Your task to perform on an android device: turn off javascript in the chrome app Image 0: 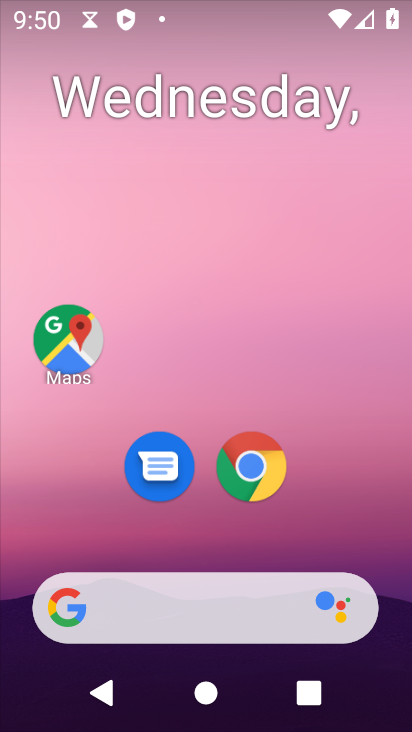
Step 0: click (239, 476)
Your task to perform on an android device: turn off javascript in the chrome app Image 1: 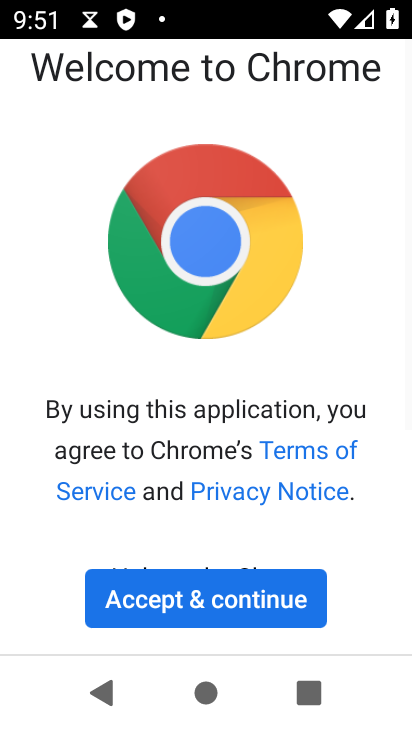
Step 1: click (210, 613)
Your task to perform on an android device: turn off javascript in the chrome app Image 2: 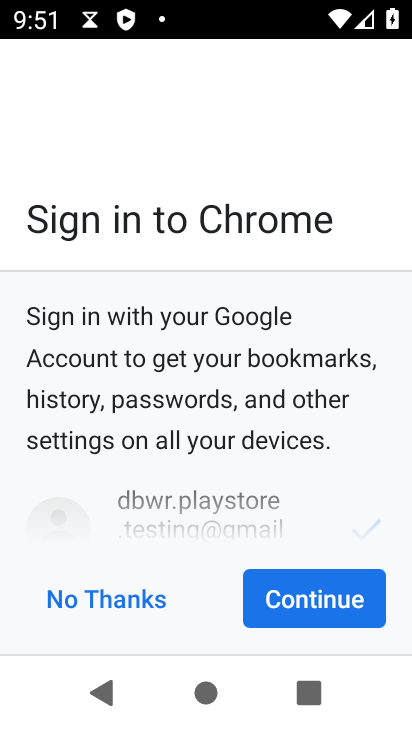
Step 2: click (304, 605)
Your task to perform on an android device: turn off javascript in the chrome app Image 3: 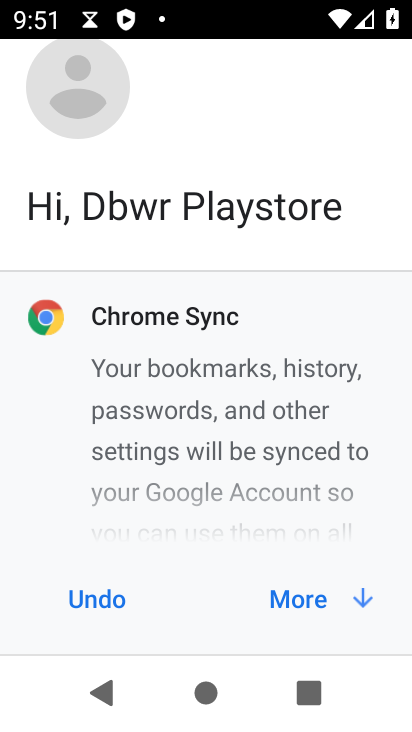
Step 3: click (304, 605)
Your task to perform on an android device: turn off javascript in the chrome app Image 4: 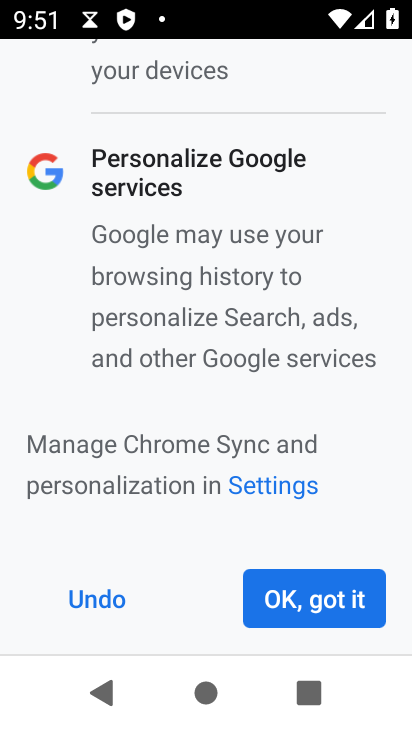
Step 4: click (302, 610)
Your task to perform on an android device: turn off javascript in the chrome app Image 5: 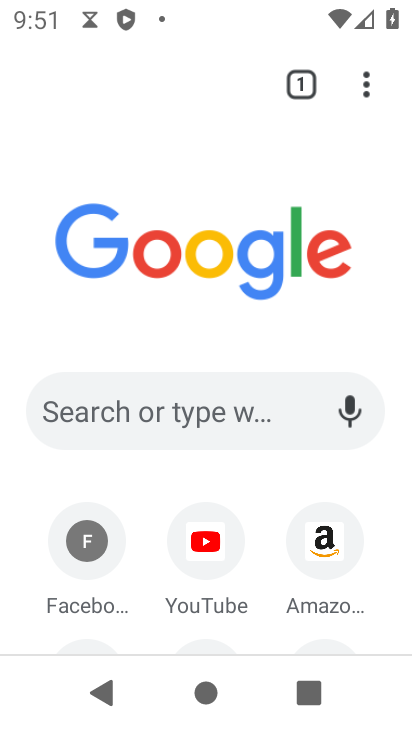
Step 5: click (365, 96)
Your task to perform on an android device: turn off javascript in the chrome app Image 6: 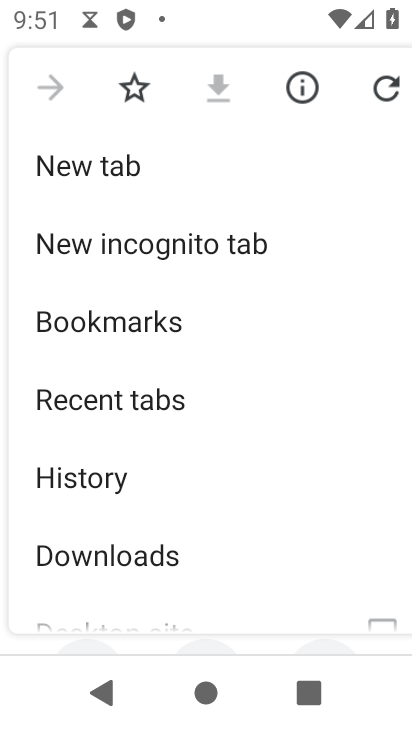
Step 6: drag from (252, 545) to (175, 115)
Your task to perform on an android device: turn off javascript in the chrome app Image 7: 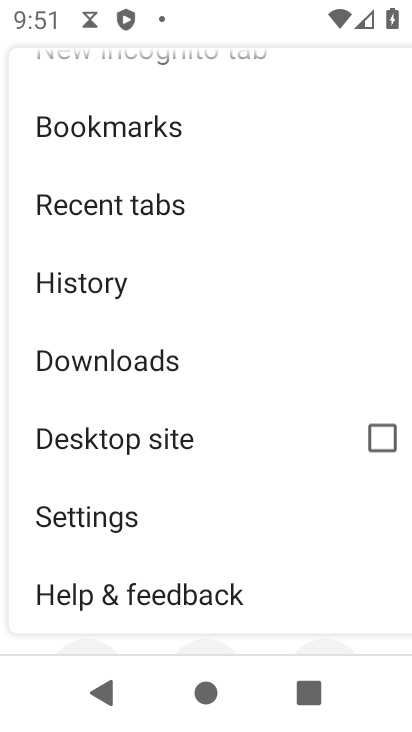
Step 7: click (105, 526)
Your task to perform on an android device: turn off javascript in the chrome app Image 8: 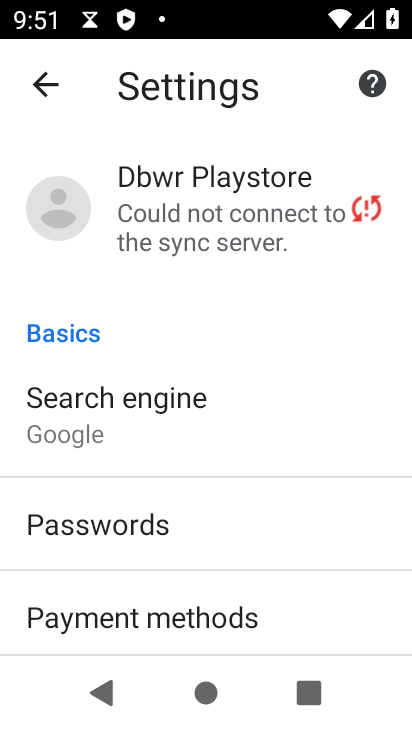
Step 8: drag from (157, 552) to (107, 143)
Your task to perform on an android device: turn off javascript in the chrome app Image 9: 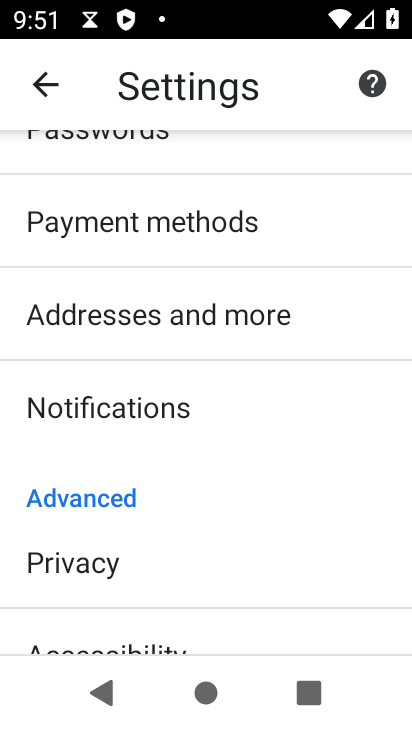
Step 9: drag from (184, 569) to (166, 203)
Your task to perform on an android device: turn off javascript in the chrome app Image 10: 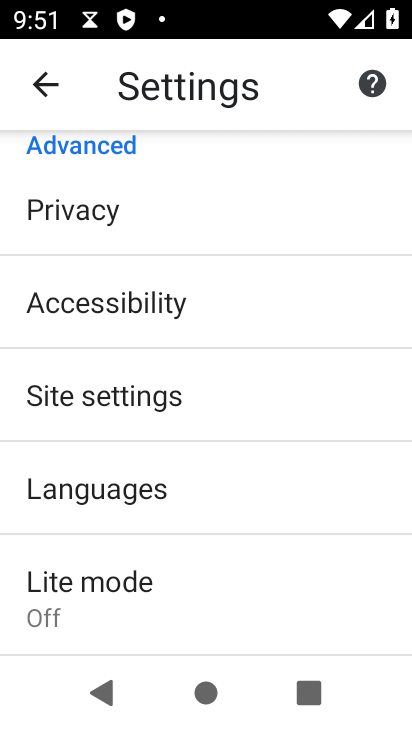
Step 10: click (132, 406)
Your task to perform on an android device: turn off javascript in the chrome app Image 11: 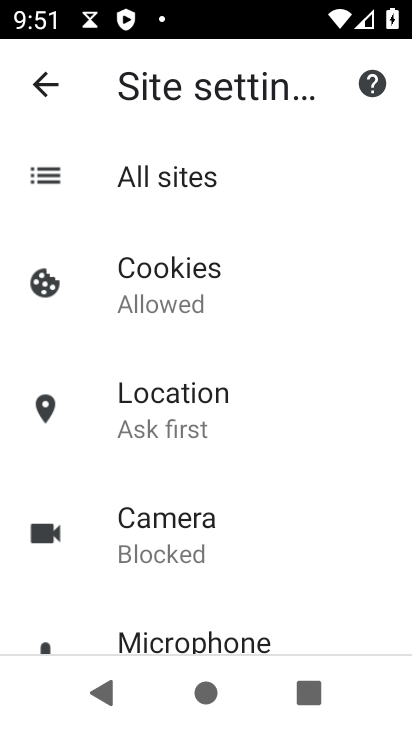
Step 11: drag from (217, 575) to (186, 283)
Your task to perform on an android device: turn off javascript in the chrome app Image 12: 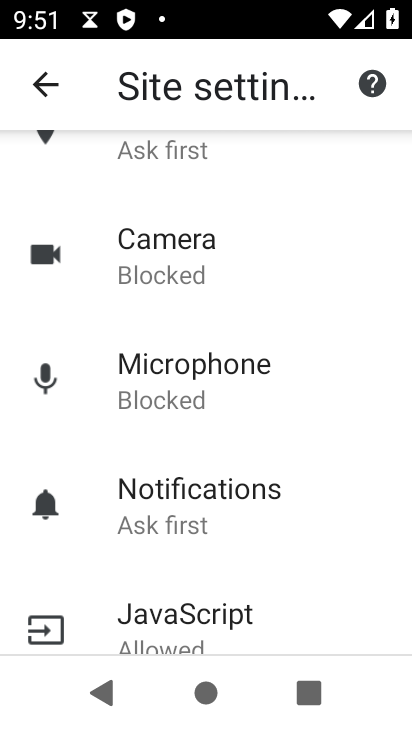
Step 12: click (207, 631)
Your task to perform on an android device: turn off javascript in the chrome app Image 13: 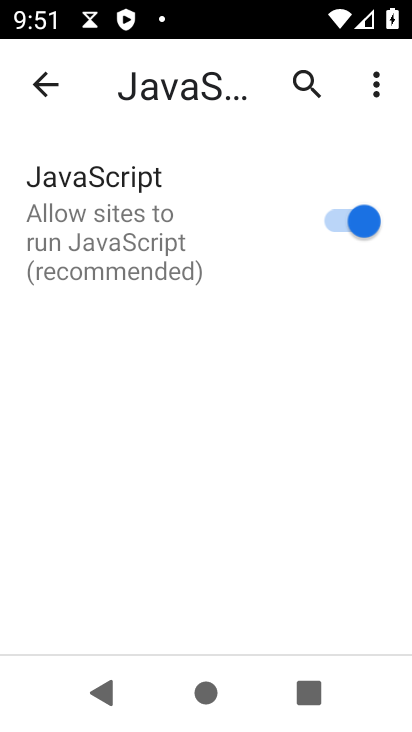
Step 13: click (320, 230)
Your task to perform on an android device: turn off javascript in the chrome app Image 14: 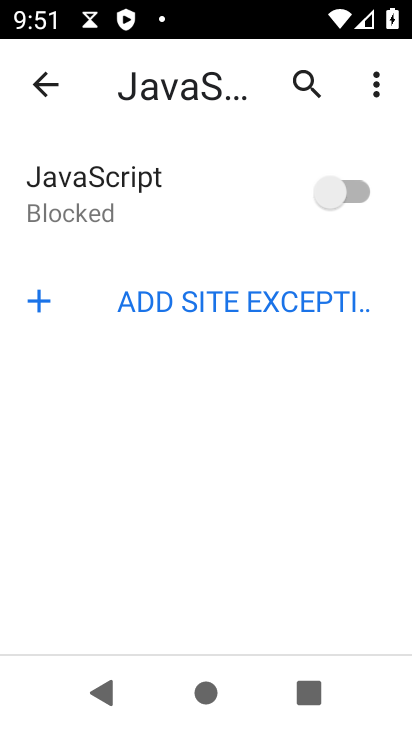
Step 14: task complete